Your task to perform on an android device: Go to ESPN.com Image 0: 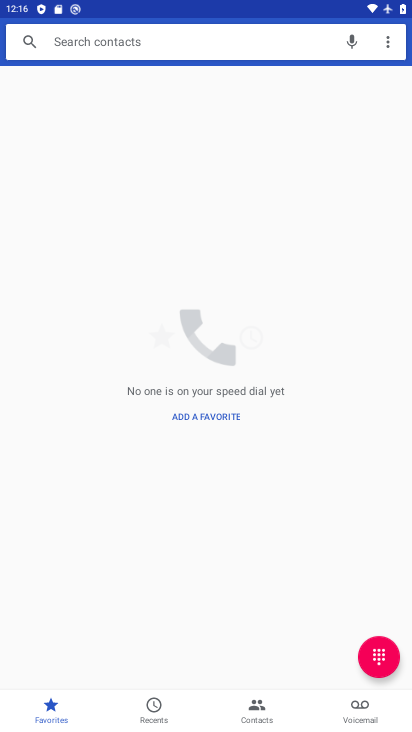
Step 0: press home button
Your task to perform on an android device: Go to ESPN.com Image 1: 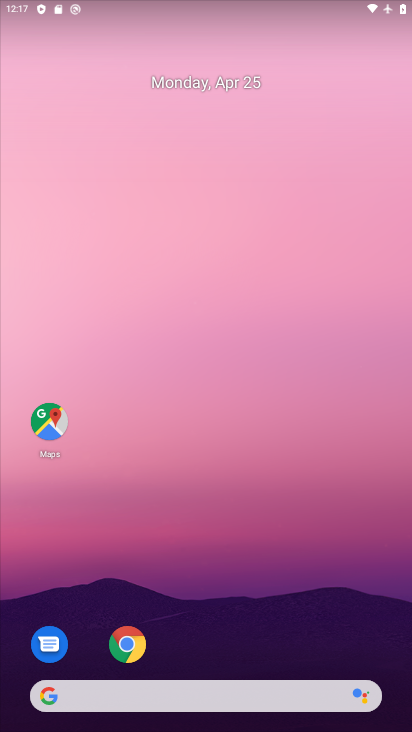
Step 1: click (124, 653)
Your task to perform on an android device: Go to ESPN.com Image 2: 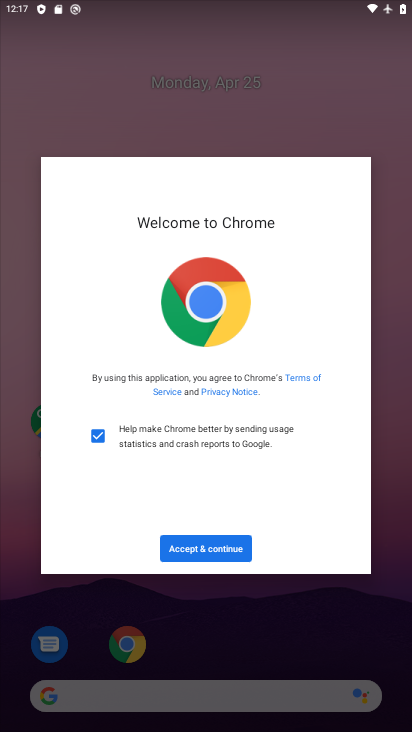
Step 2: click (217, 559)
Your task to perform on an android device: Go to ESPN.com Image 3: 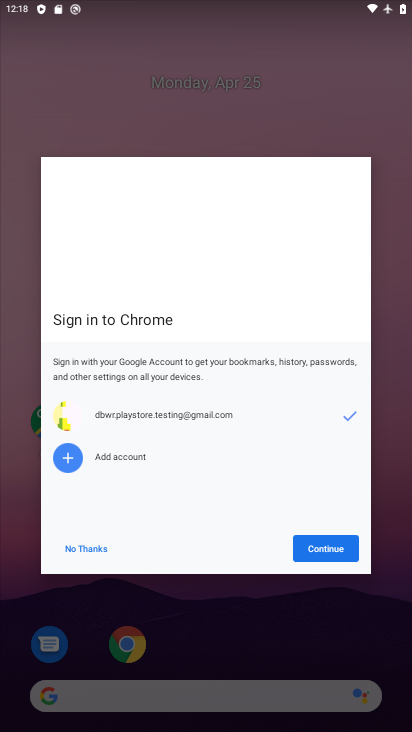
Step 3: click (309, 559)
Your task to perform on an android device: Go to ESPN.com Image 4: 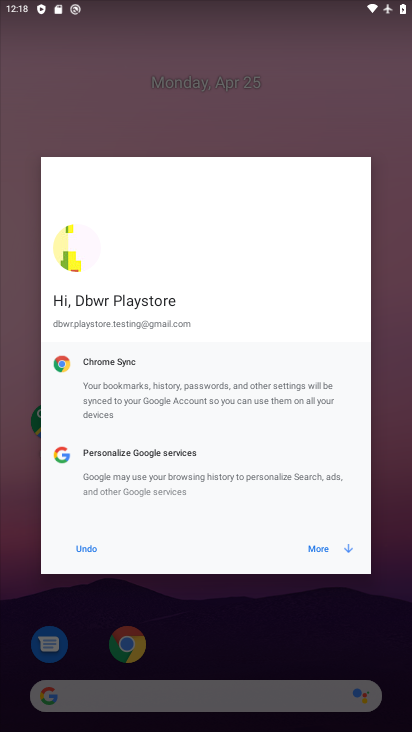
Step 4: click (309, 559)
Your task to perform on an android device: Go to ESPN.com Image 5: 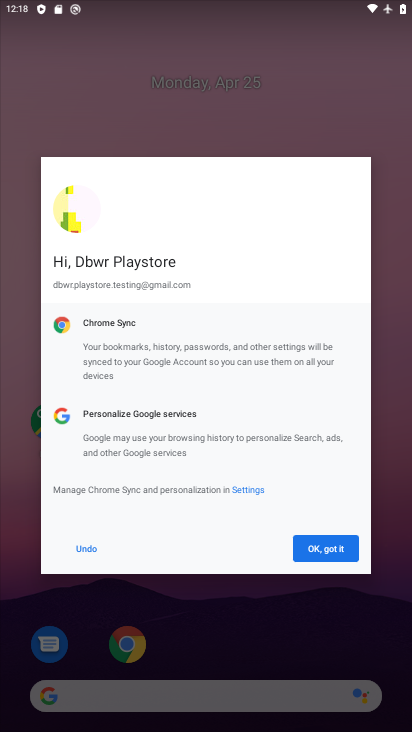
Step 5: click (332, 549)
Your task to perform on an android device: Go to ESPN.com Image 6: 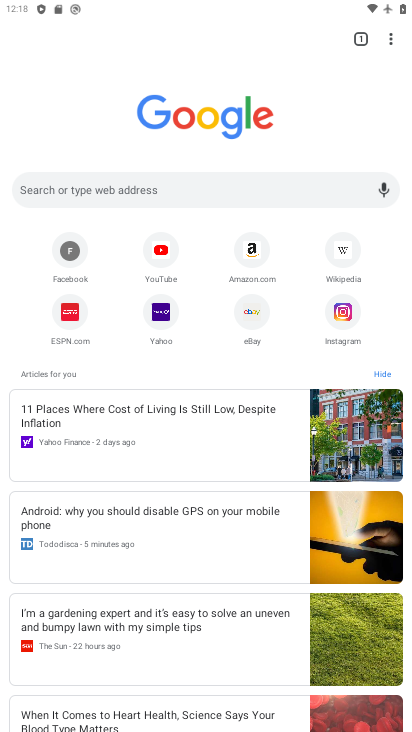
Step 6: click (81, 325)
Your task to perform on an android device: Go to ESPN.com Image 7: 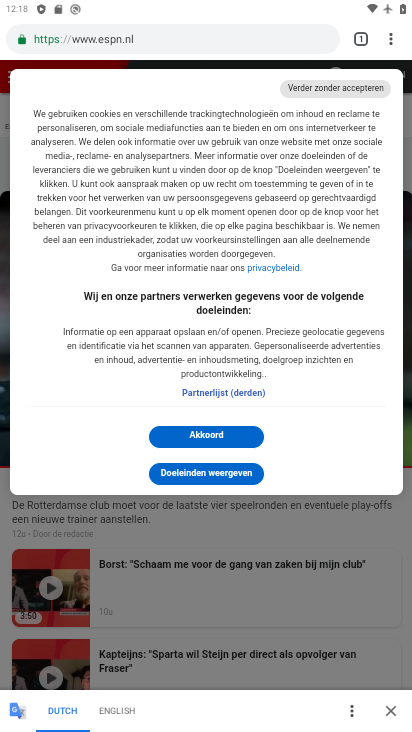
Step 7: task complete